Your task to perform on an android device: delete a single message in the gmail app Image 0: 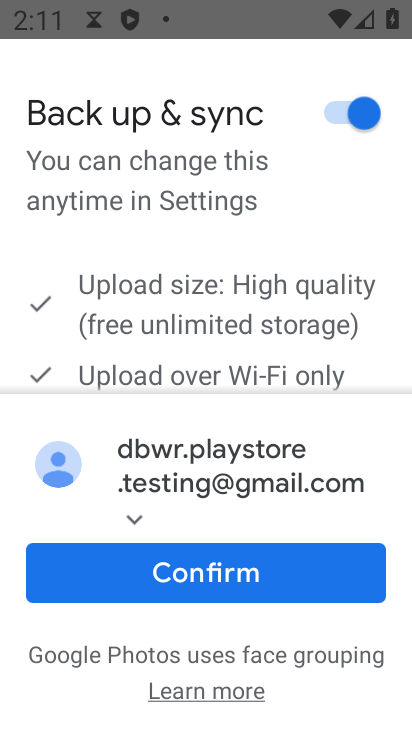
Step 0: click (194, 573)
Your task to perform on an android device: delete a single message in the gmail app Image 1: 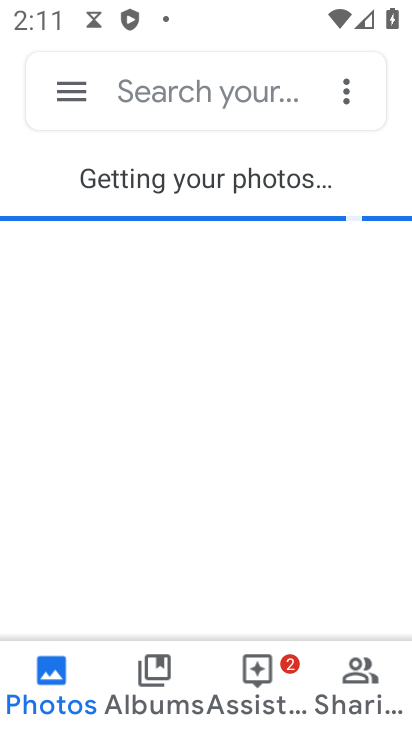
Step 1: press home button
Your task to perform on an android device: delete a single message in the gmail app Image 2: 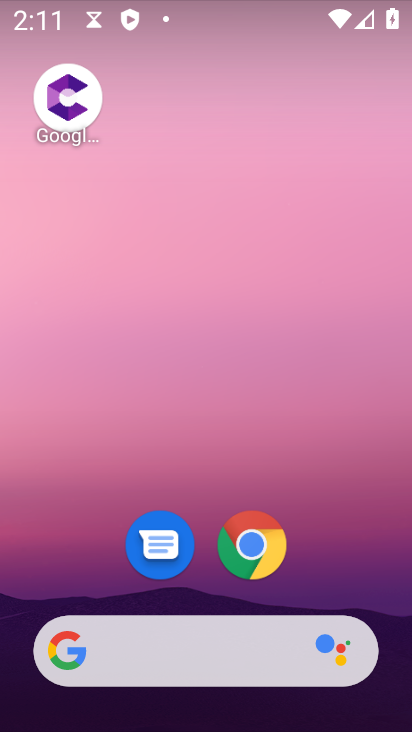
Step 2: drag from (207, 532) to (264, 9)
Your task to perform on an android device: delete a single message in the gmail app Image 3: 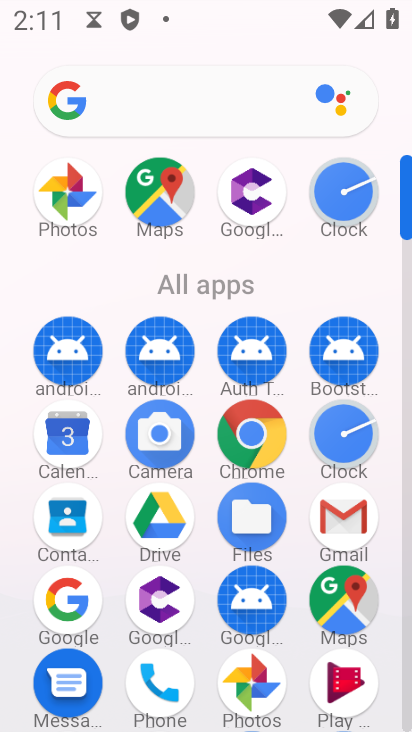
Step 3: click (346, 522)
Your task to perform on an android device: delete a single message in the gmail app Image 4: 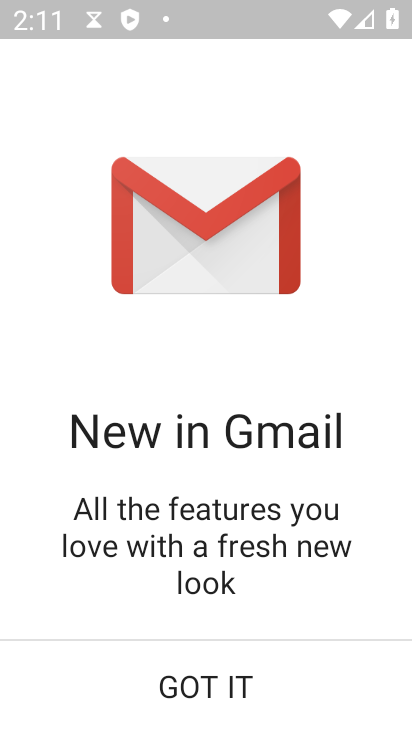
Step 4: click (211, 692)
Your task to perform on an android device: delete a single message in the gmail app Image 5: 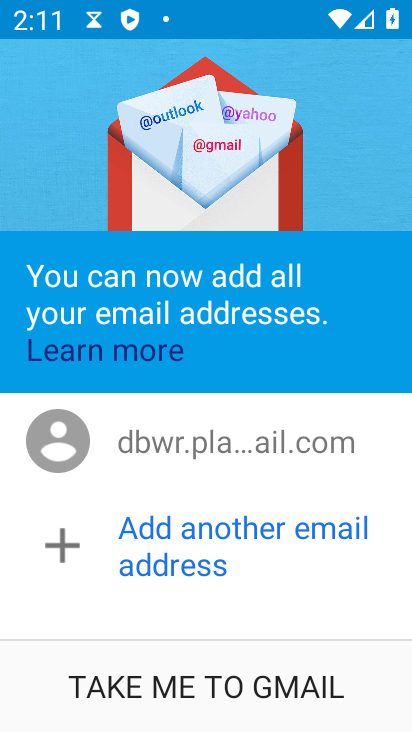
Step 5: click (195, 693)
Your task to perform on an android device: delete a single message in the gmail app Image 6: 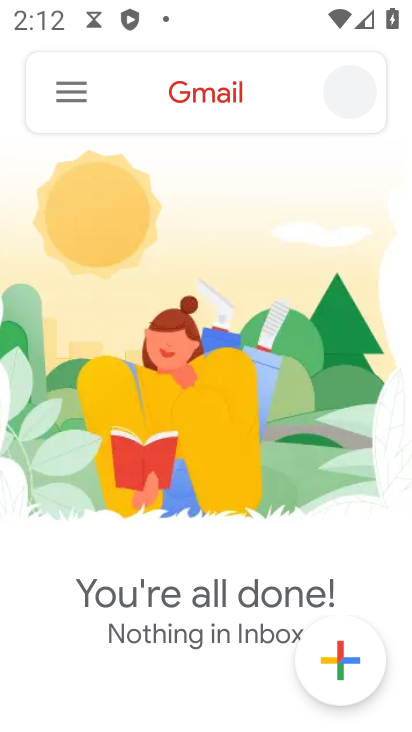
Step 6: click (63, 91)
Your task to perform on an android device: delete a single message in the gmail app Image 7: 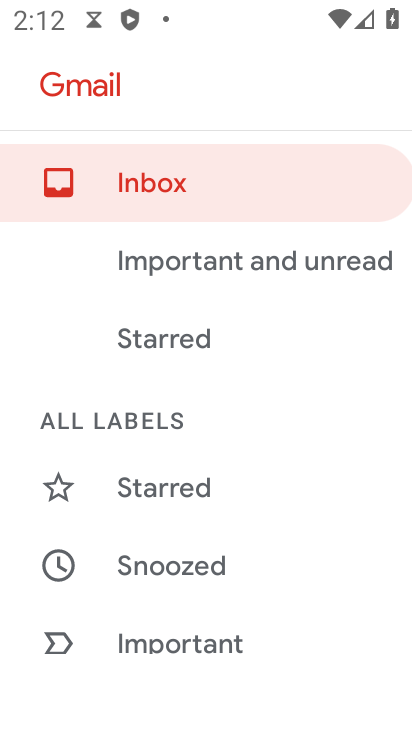
Step 7: drag from (166, 555) to (201, 206)
Your task to perform on an android device: delete a single message in the gmail app Image 8: 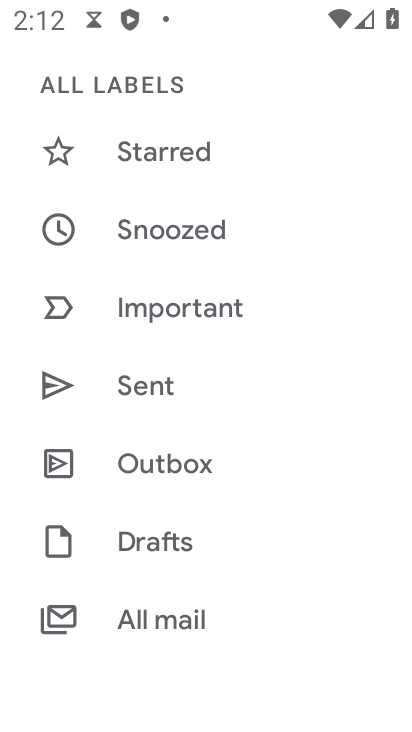
Step 8: click (145, 611)
Your task to perform on an android device: delete a single message in the gmail app Image 9: 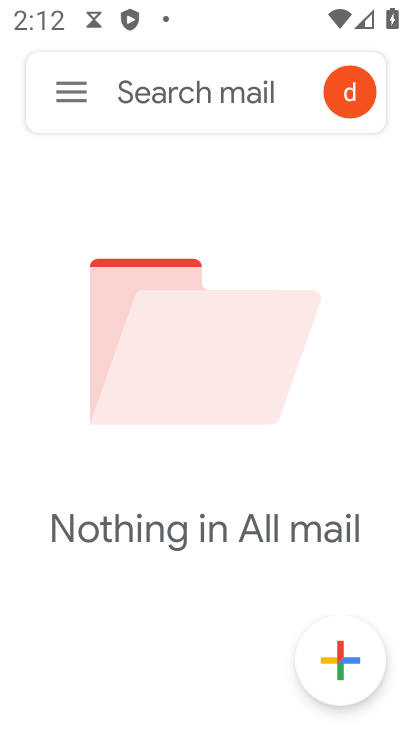
Step 9: task complete